Your task to perform on an android device: Show me recent news Image 0: 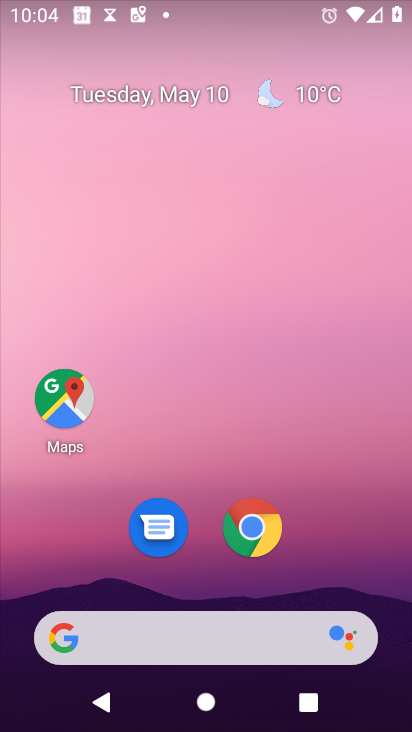
Step 0: drag from (7, 290) to (410, 312)
Your task to perform on an android device: Show me recent news Image 1: 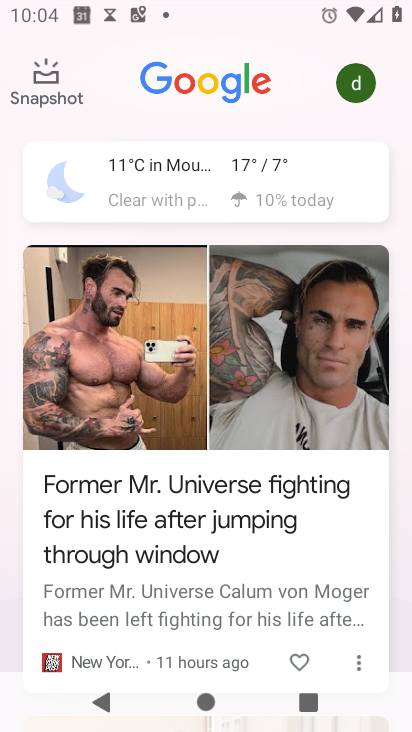
Step 1: task complete